Your task to perform on an android device: add a label to a message in the gmail app Image 0: 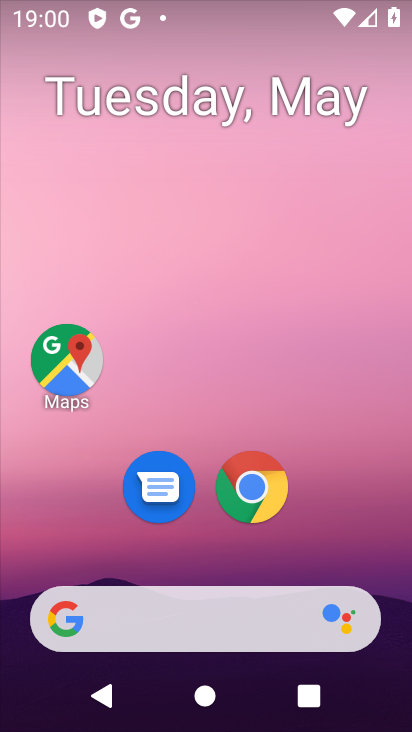
Step 0: drag from (336, 522) to (238, 149)
Your task to perform on an android device: add a label to a message in the gmail app Image 1: 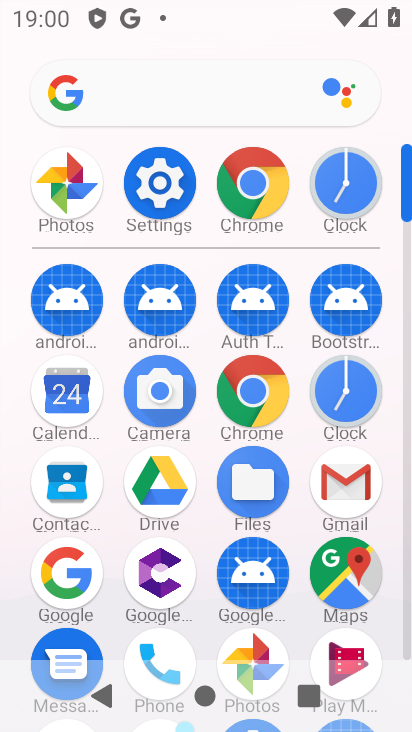
Step 1: click (351, 471)
Your task to perform on an android device: add a label to a message in the gmail app Image 2: 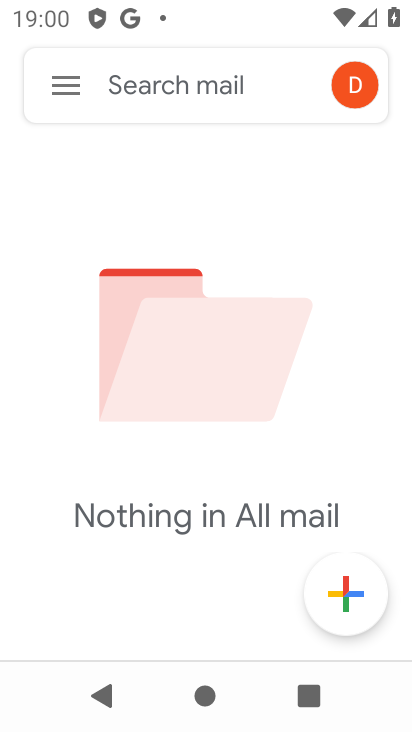
Step 2: click (65, 85)
Your task to perform on an android device: add a label to a message in the gmail app Image 3: 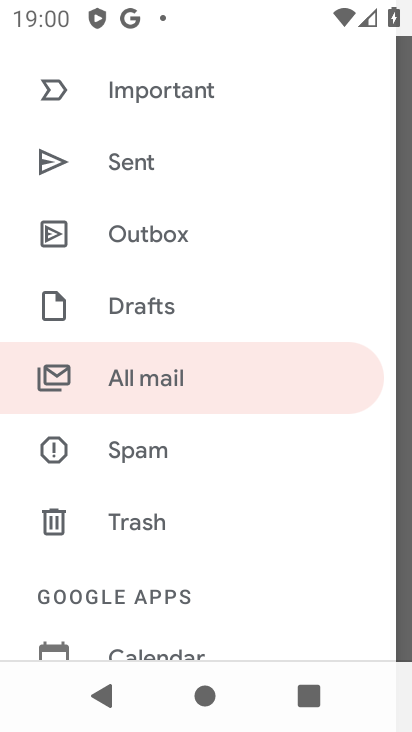
Step 3: click (140, 380)
Your task to perform on an android device: add a label to a message in the gmail app Image 4: 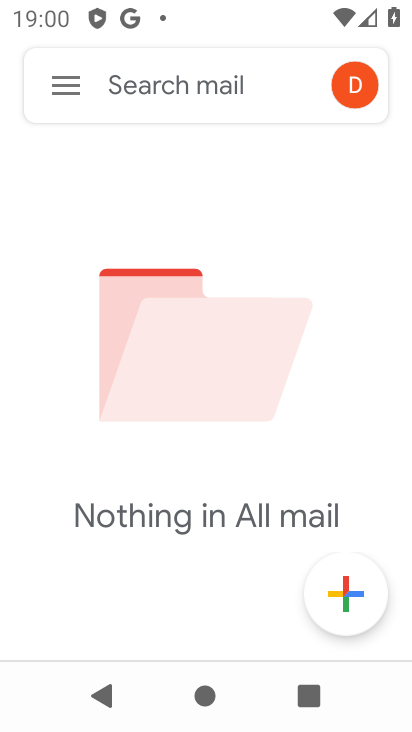
Step 4: task complete